Your task to perform on an android device: change keyboard looks Image 0: 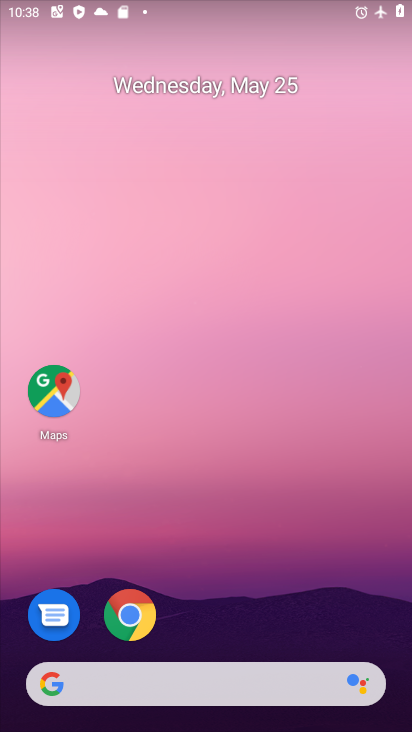
Step 0: click (220, 688)
Your task to perform on an android device: change keyboard looks Image 1: 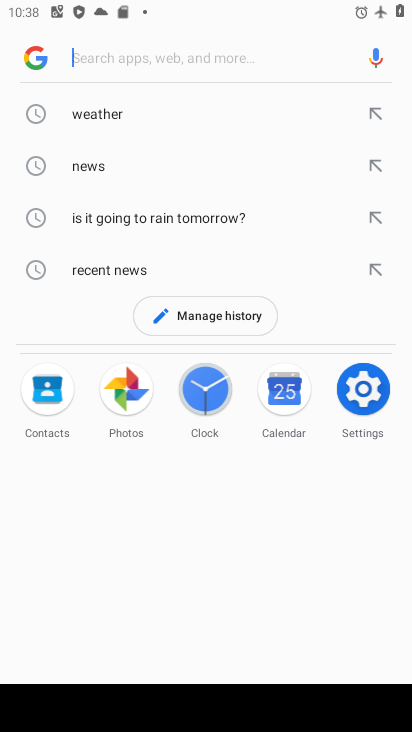
Step 1: press home button
Your task to perform on an android device: change keyboard looks Image 2: 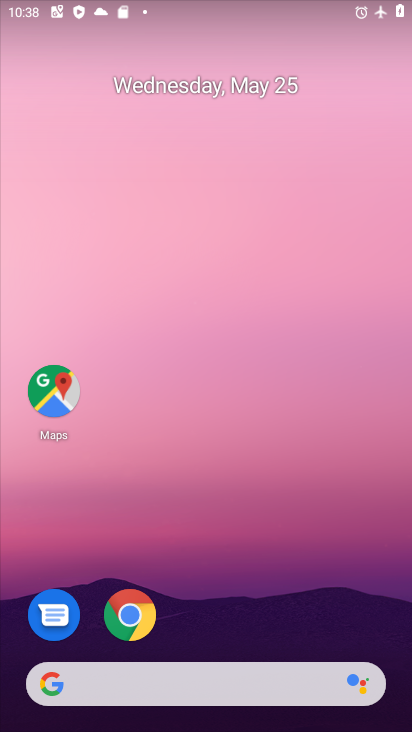
Step 2: drag from (234, 548) to (249, 33)
Your task to perform on an android device: change keyboard looks Image 3: 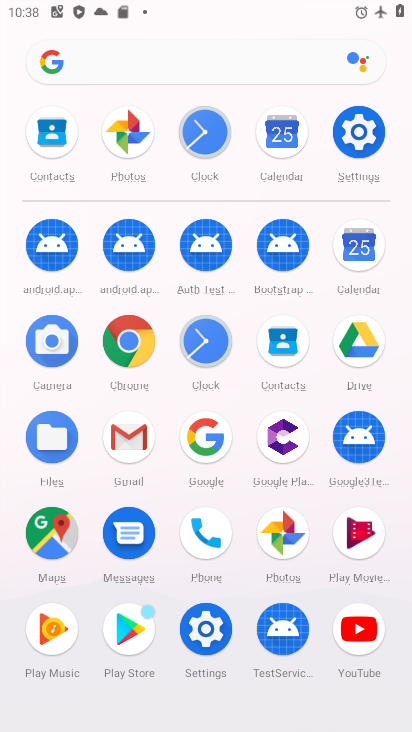
Step 3: click (345, 136)
Your task to perform on an android device: change keyboard looks Image 4: 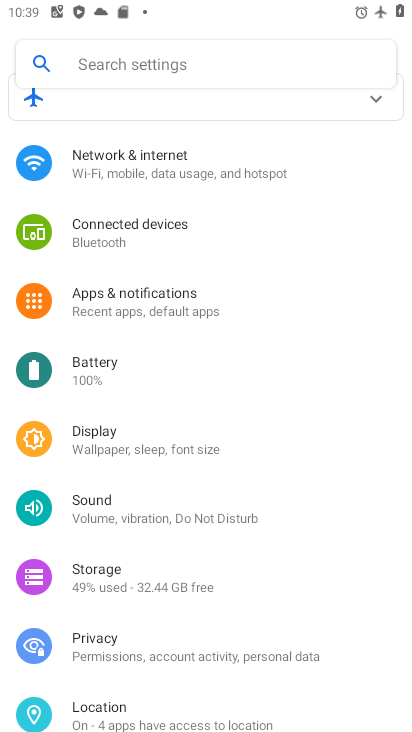
Step 4: drag from (204, 516) to (225, 168)
Your task to perform on an android device: change keyboard looks Image 5: 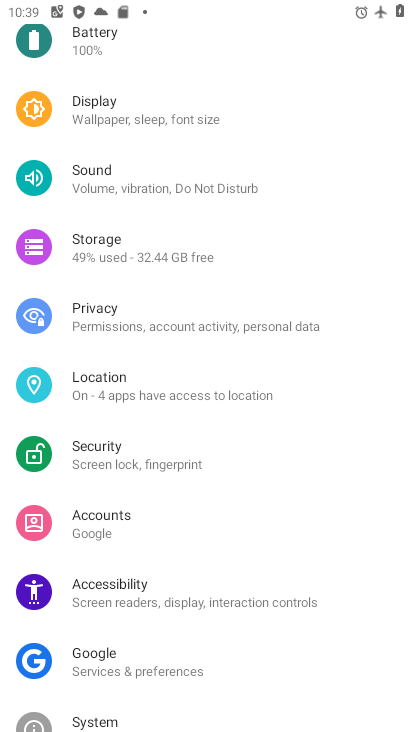
Step 5: drag from (203, 618) to (241, 264)
Your task to perform on an android device: change keyboard looks Image 6: 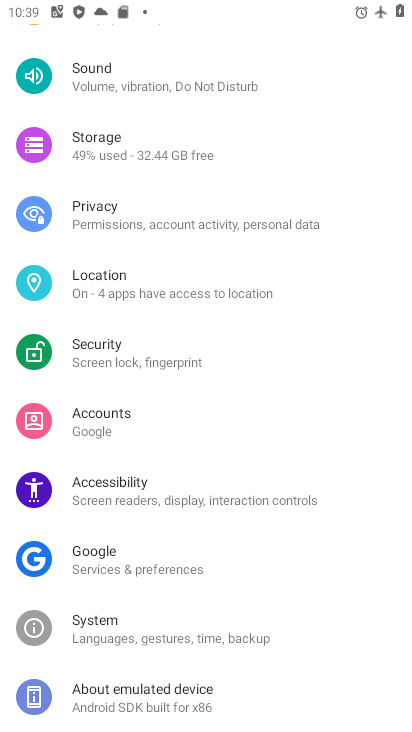
Step 6: click (169, 634)
Your task to perform on an android device: change keyboard looks Image 7: 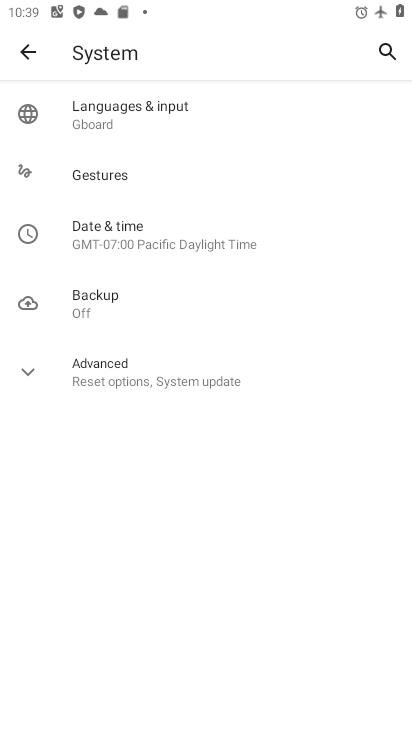
Step 7: click (157, 109)
Your task to perform on an android device: change keyboard looks Image 8: 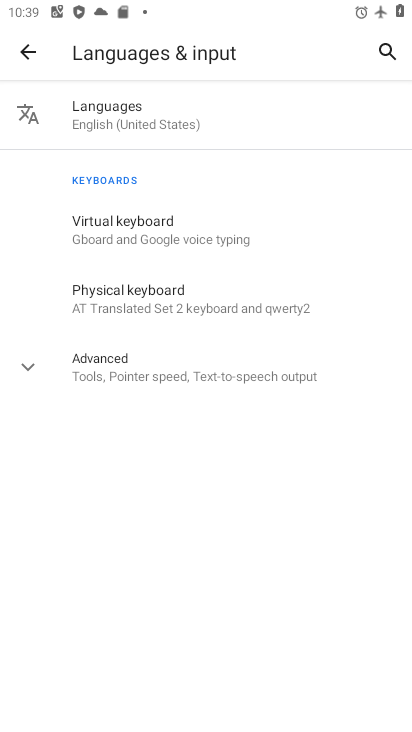
Step 8: click (123, 214)
Your task to perform on an android device: change keyboard looks Image 9: 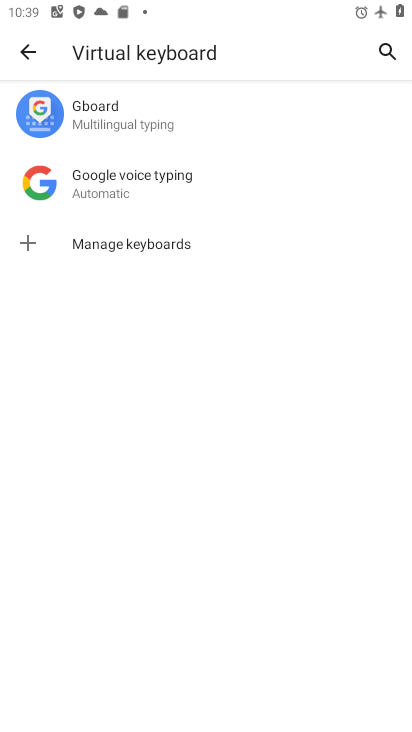
Step 9: click (149, 118)
Your task to perform on an android device: change keyboard looks Image 10: 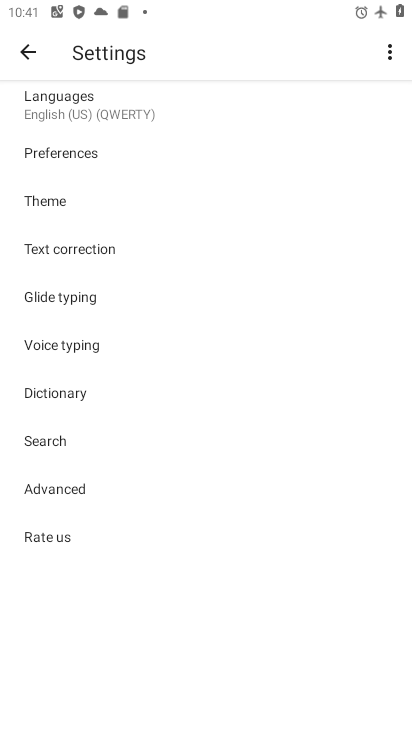
Step 10: click (80, 193)
Your task to perform on an android device: change keyboard looks Image 11: 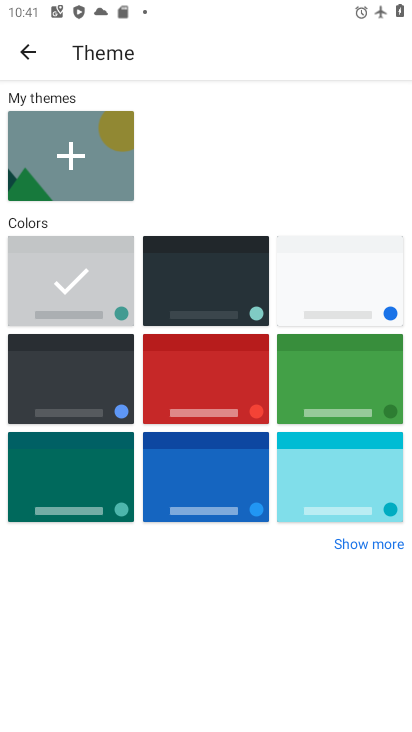
Step 11: click (234, 361)
Your task to perform on an android device: change keyboard looks Image 12: 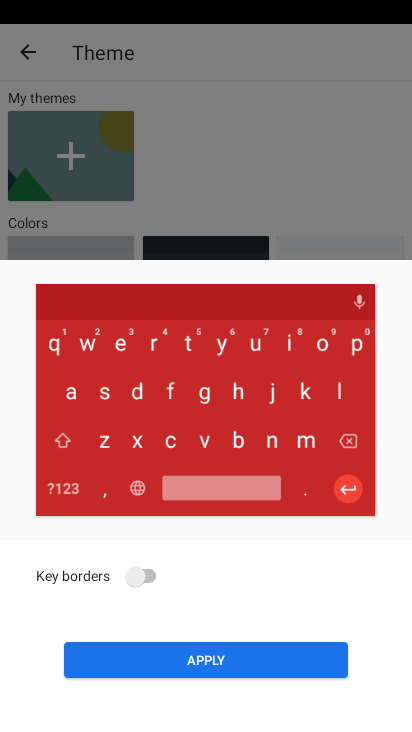
Step 12: click (144, 576)
Your task to perform on an android device: change keyboard looks Image 13: 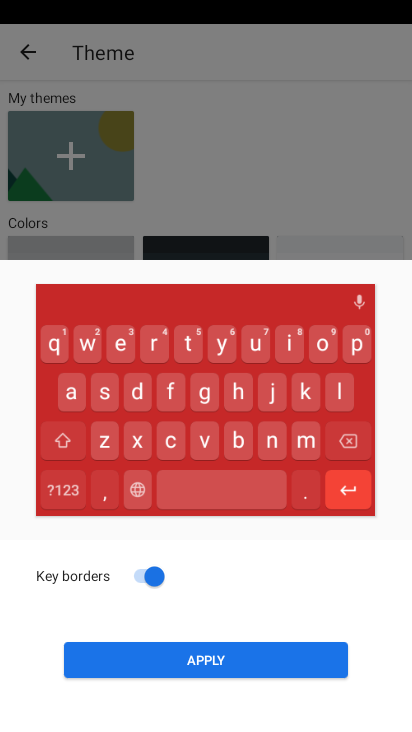
Step 13: click (212, 660)
Your task to perform on an android device: change keyboard looks Image 14: 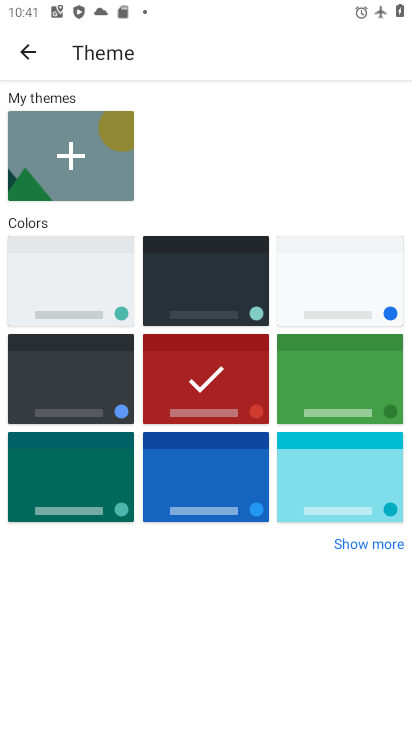
Step 14: task complete